Your task to perform on an android device: refresh tabs in the chrome app Image 0: 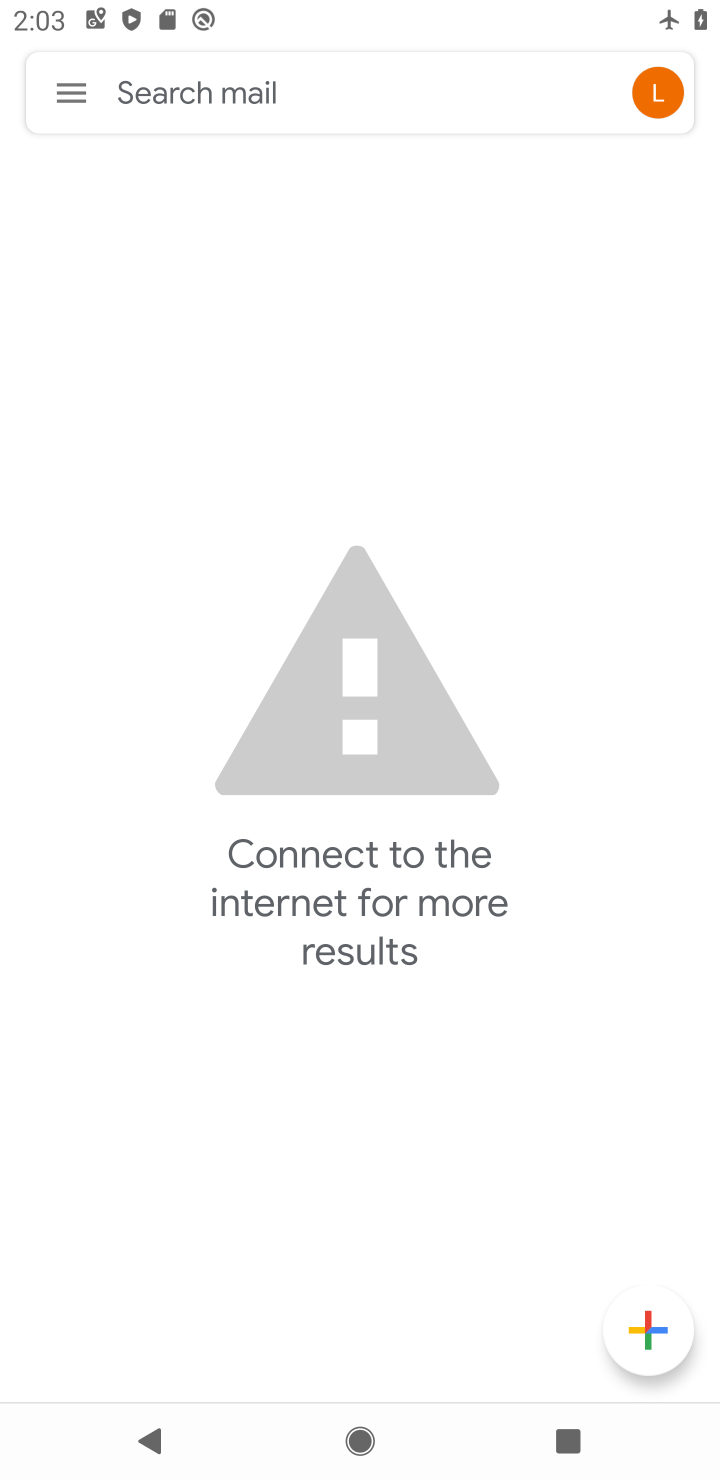
Step 0: press home button
Your task to perform on an android device: refresh tabs in the chrome app Image 1: 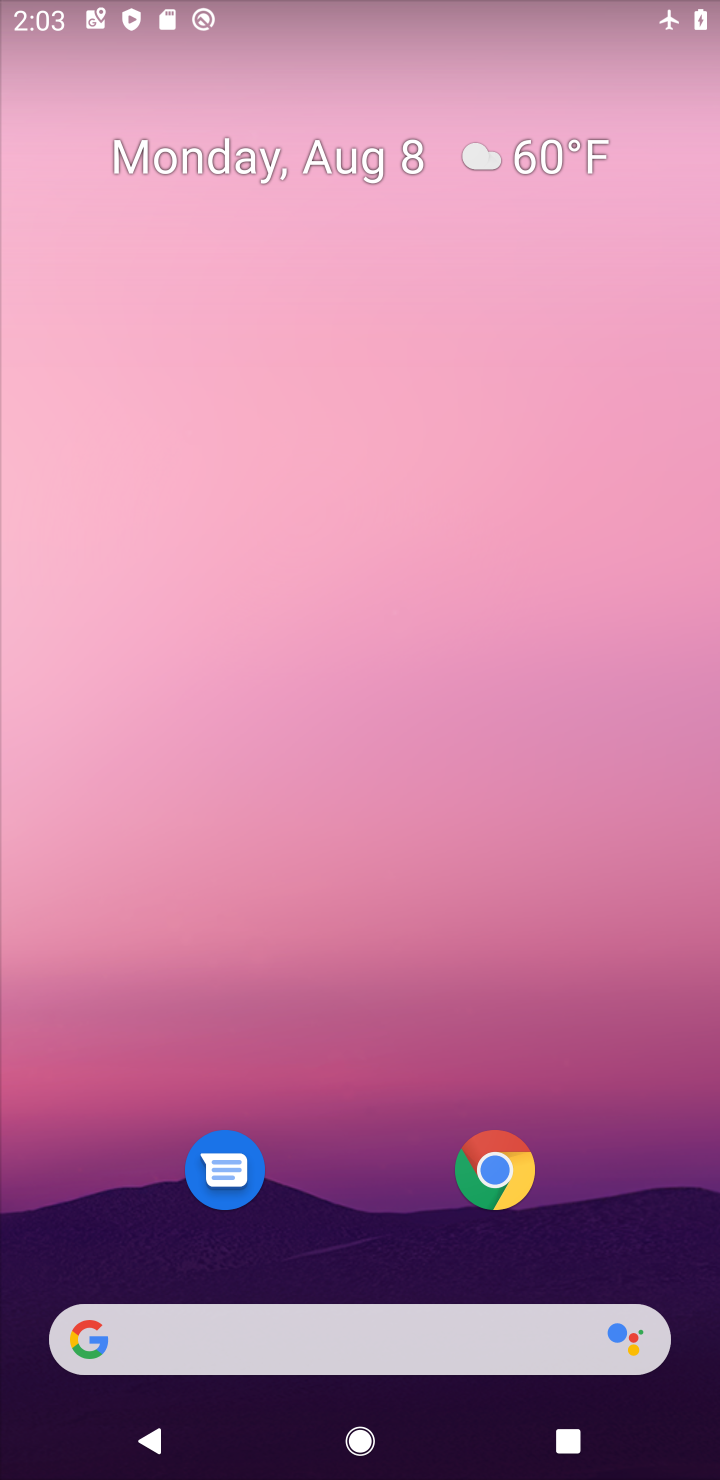
Step 1: click (493, 1168)
Your task to perform on an android device: refresh tabs in the chrome app Image 2: 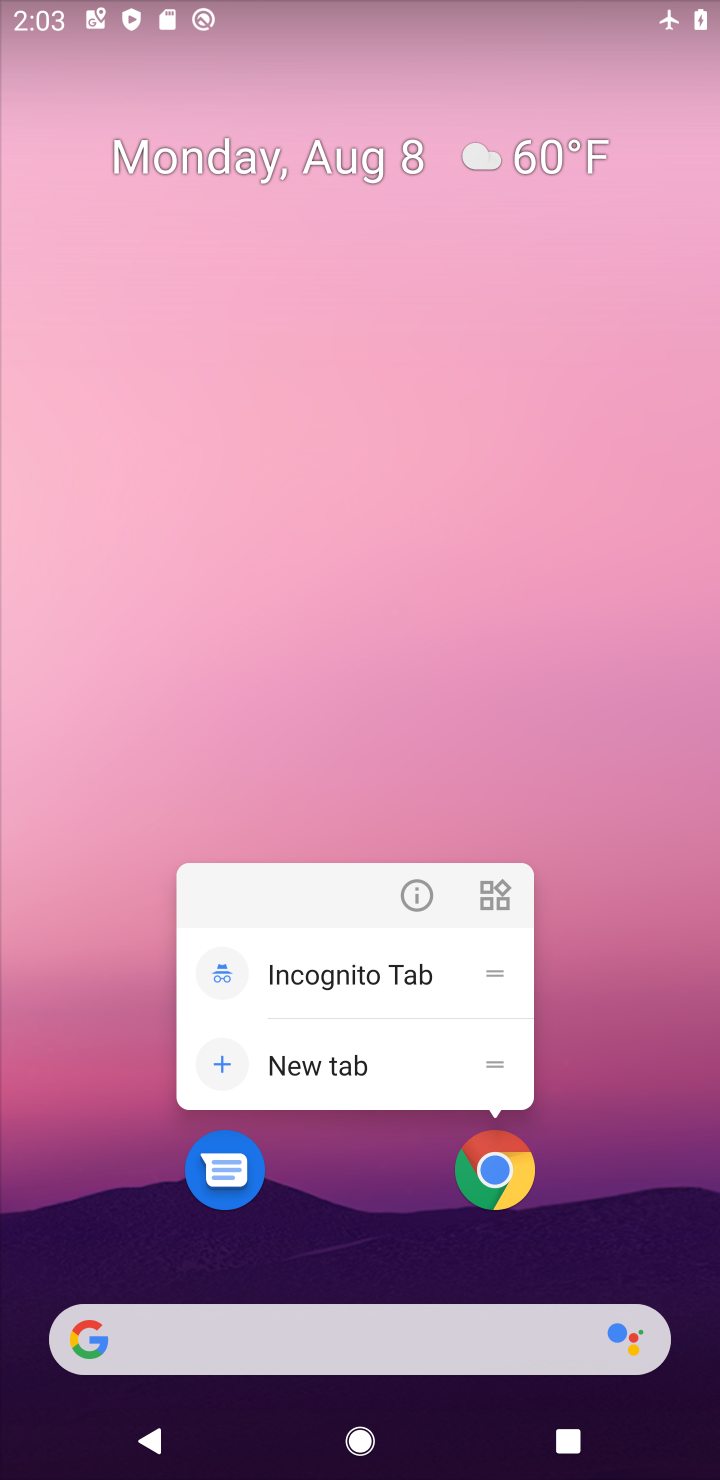
Step 2: click (493, 1168)
Your task to perform on an android device: refresh tabs in the chrome app Image 3: 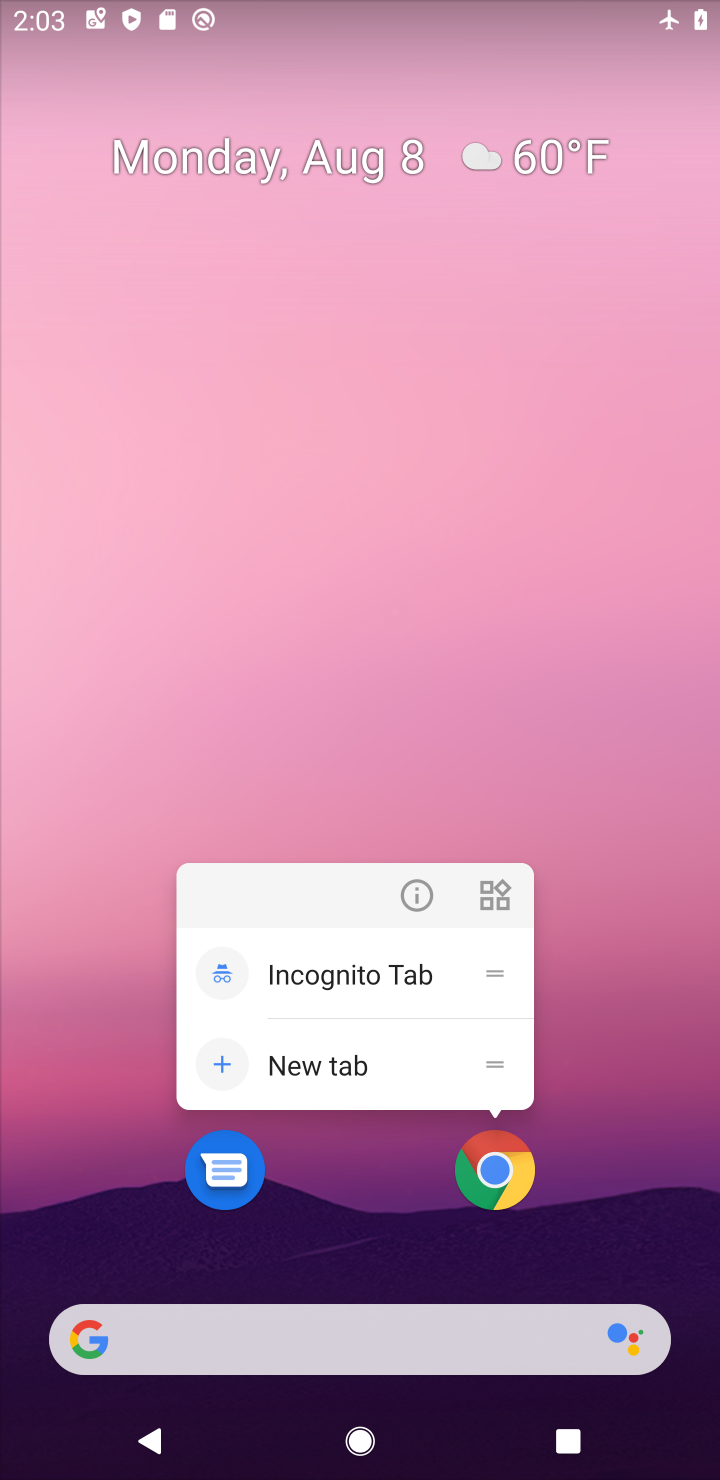
Step 3: click (493, 1168)
Your task to perform on an android device: refresh tabs in the chrome app Image 4: 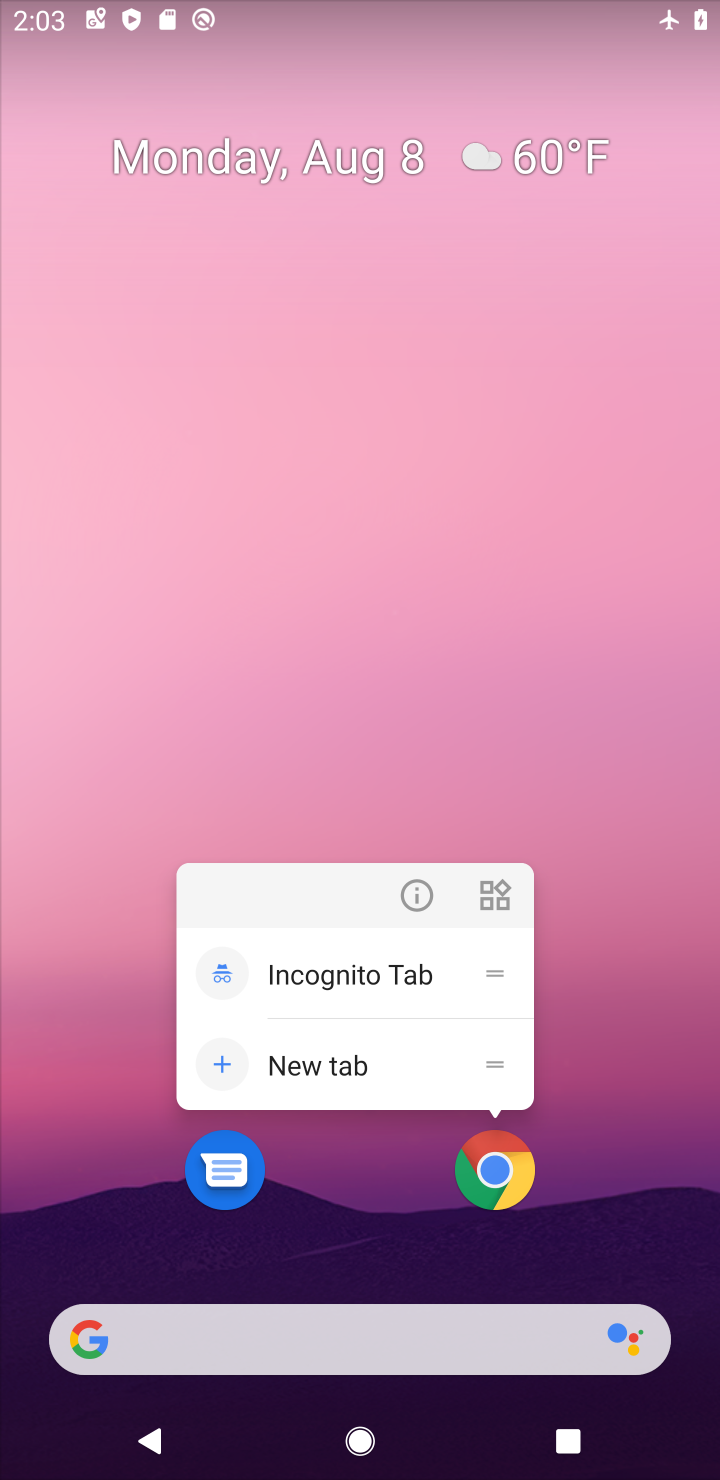
Step 4: click (493, 1168)
Your task to perform on an android device: refresh tabs in the chrome app Image 5: 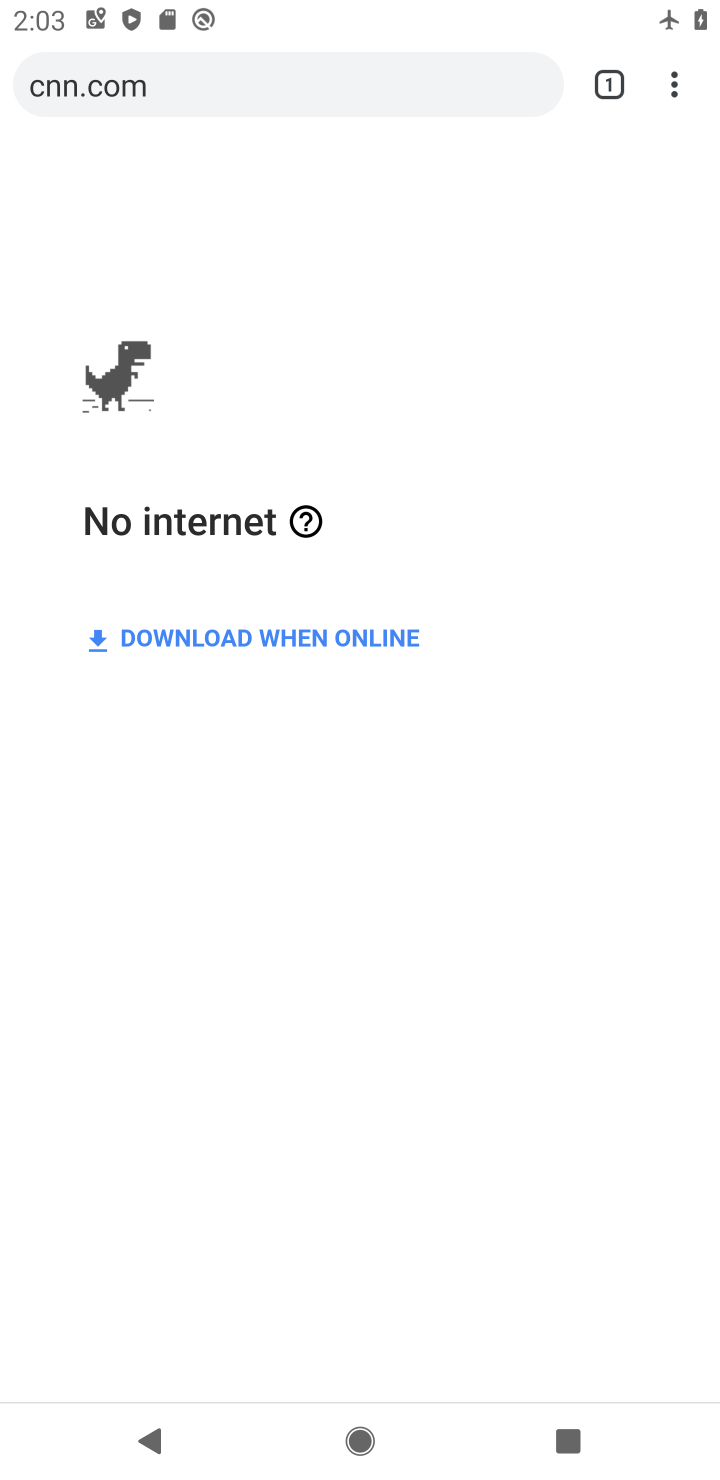
Step 5: click (663, 83)
Your task to perform on an android device: refresh tabs in the chrome app Image 6: 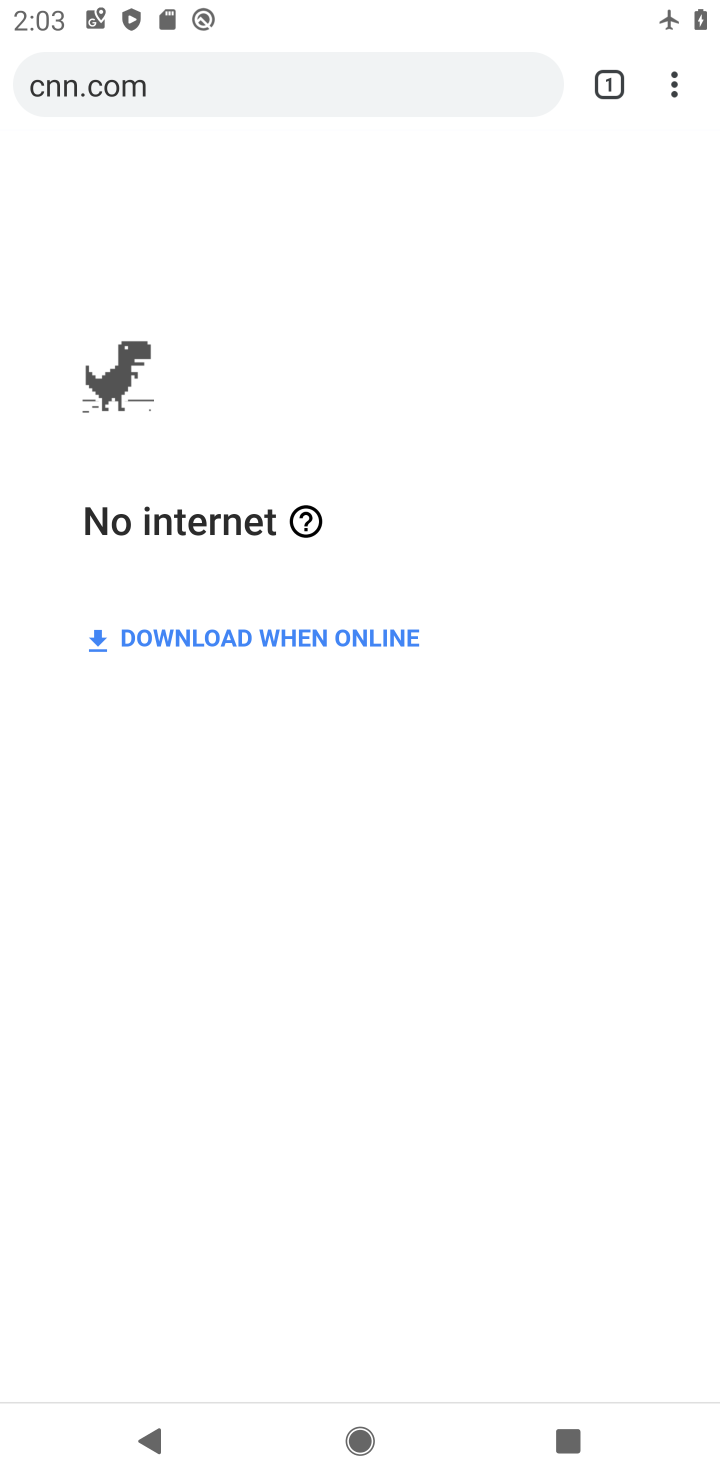
Step 6: click (679, 88)
Your task to perform on an android device: refresh tabs in the chrome app Image 7: 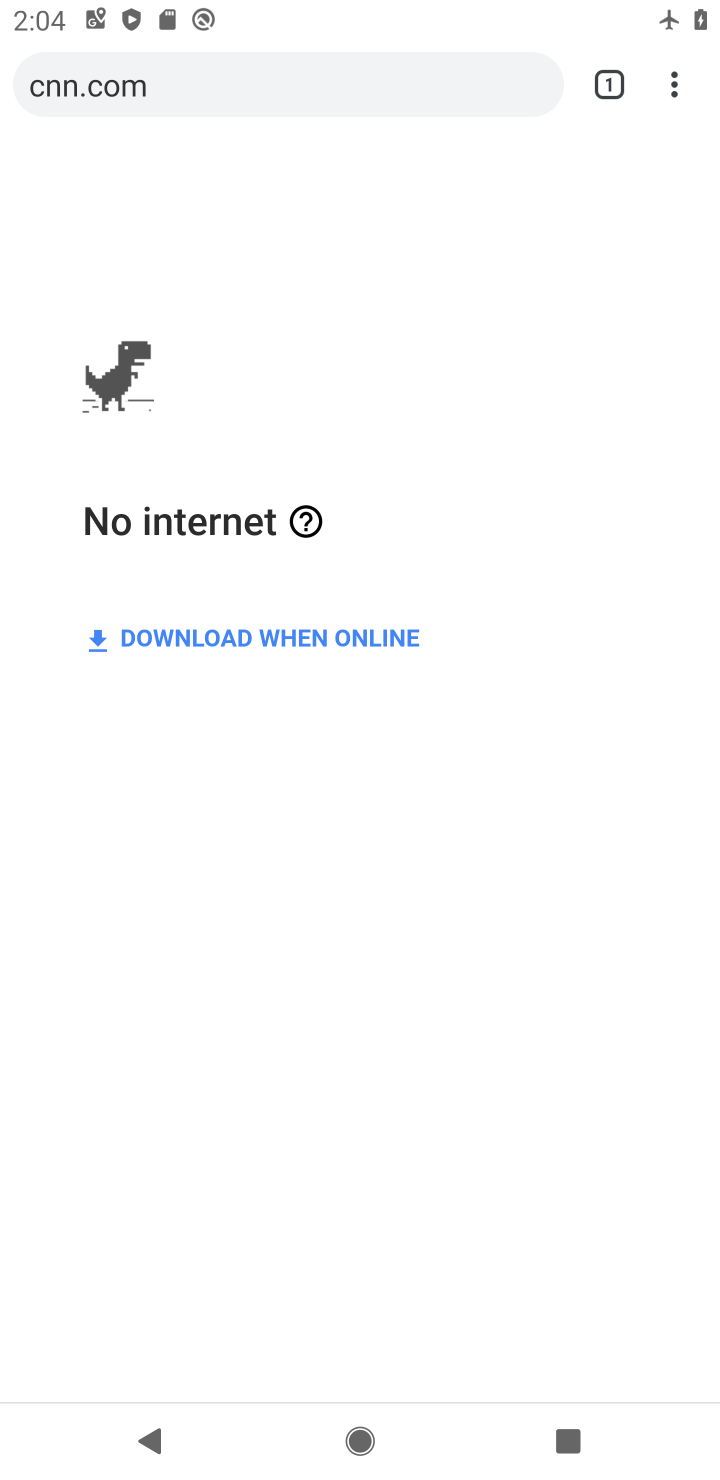
Step 7: click (679, 88)
Your task to perform on an android device: refresh tabs in the chrome app Image 8: 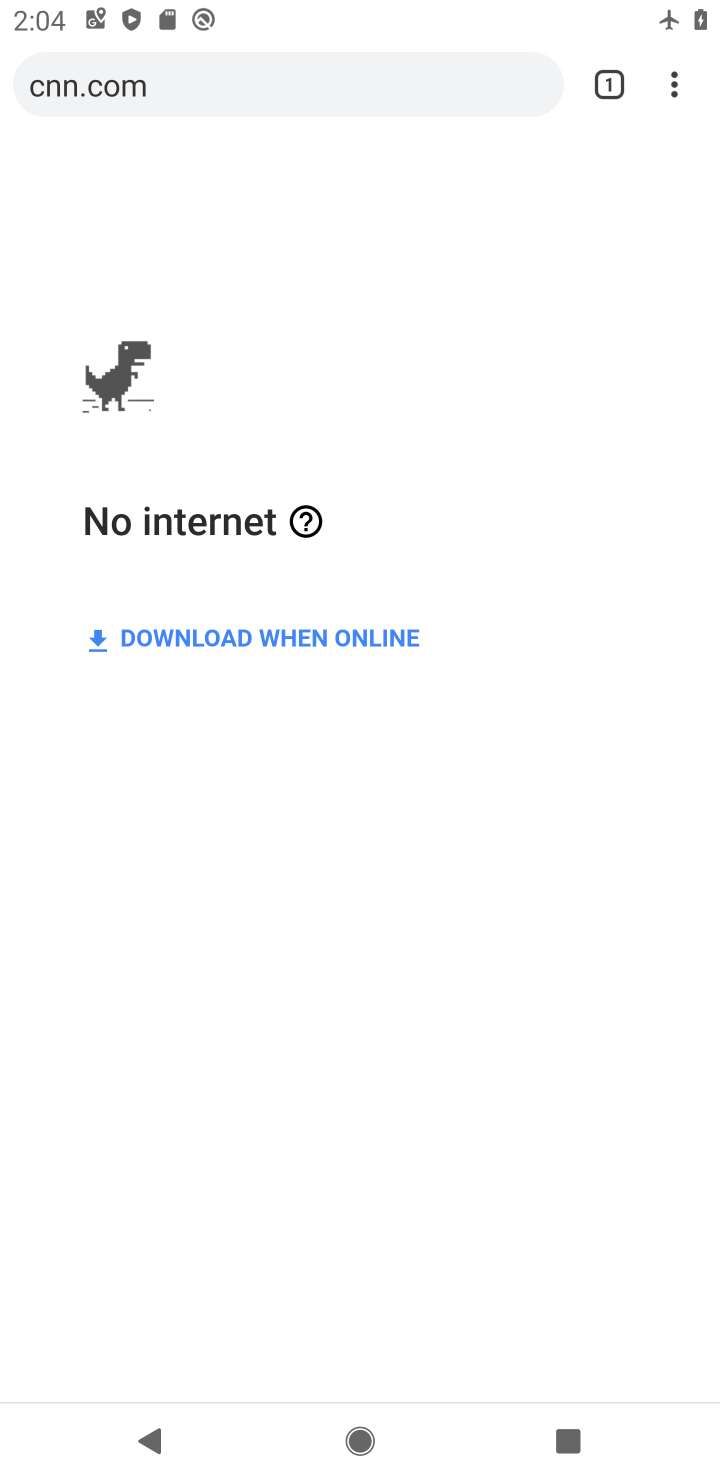
Step 8: task complete